Your task to perform on an android device: Go to Yahoo.com Image 0: 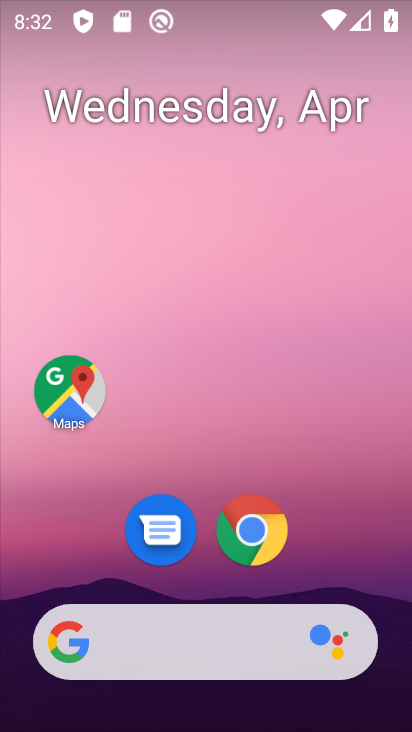
Step 0: drag from (396, 549) to (386, 321)
Your task to perform on an android device: Go to Yahoo.com Image 1: 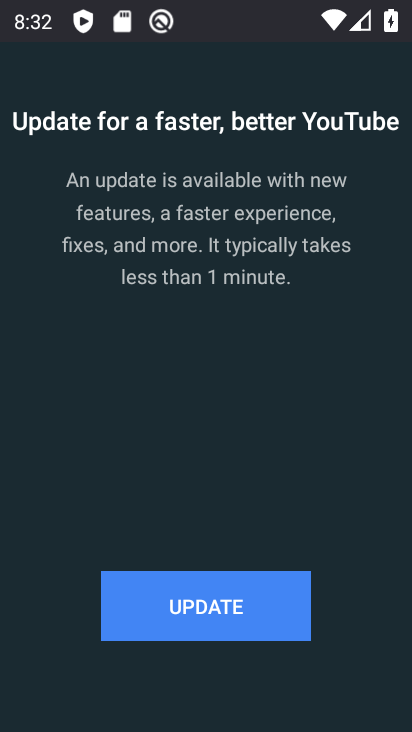
Step 1: press home button
Your task to perform on an android device: Go to Yahoo.com Image 2: 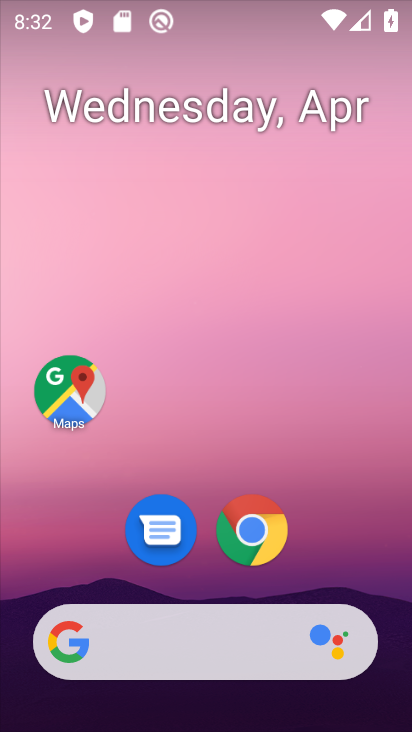
Step 2: drag from (400, 600) to (379, 222)
Your task to perform on an android device: Go to Yahoo.com Image 3: 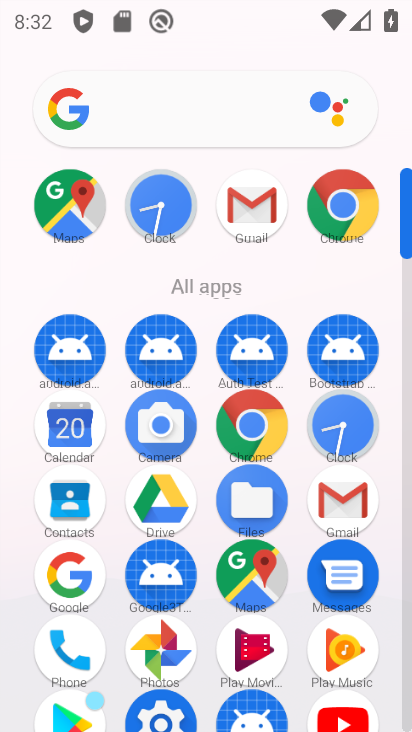
Step 3: click (241, 438)
Your task to perform on an android device: Go to Yahoo.com Image 4: 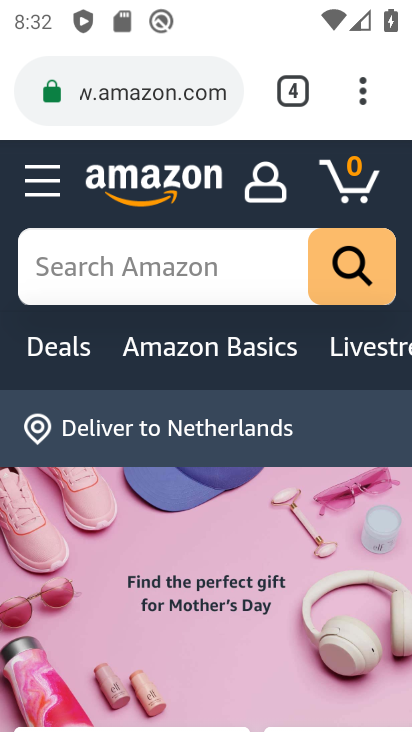
Step 4: click (293, 100)
Your task to perform on an android device: Go to Yahoo.com Image 5: 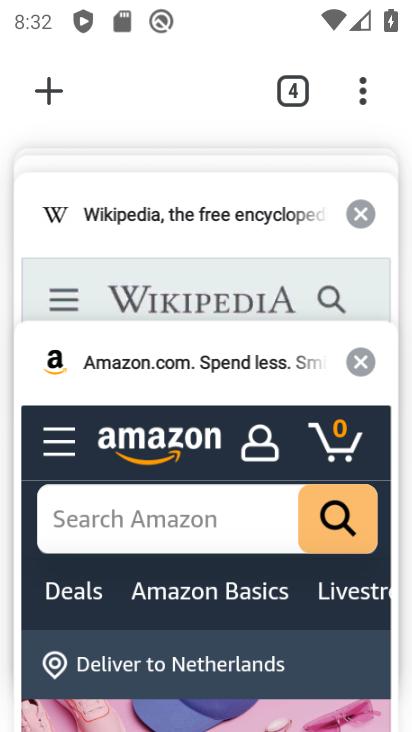
Step 5: click (42, 82)
Your task to perform on an android device: Go to Yahoo.com Image 6: 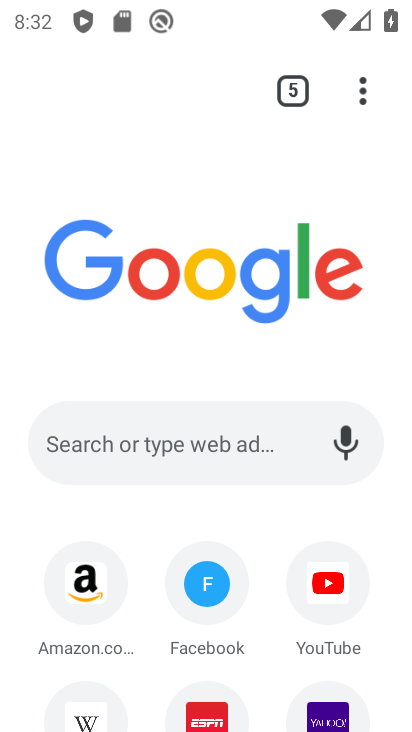
Step 6: click (319, 710)
Your task to perform on an android device: Go to Yahoo.com Image 7: 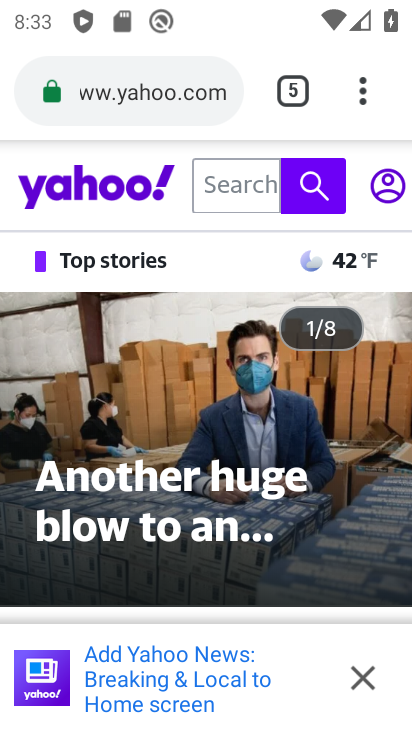
Step 7: task complete